Your task to perform on an android device: star an email in the gmail app Image 0: 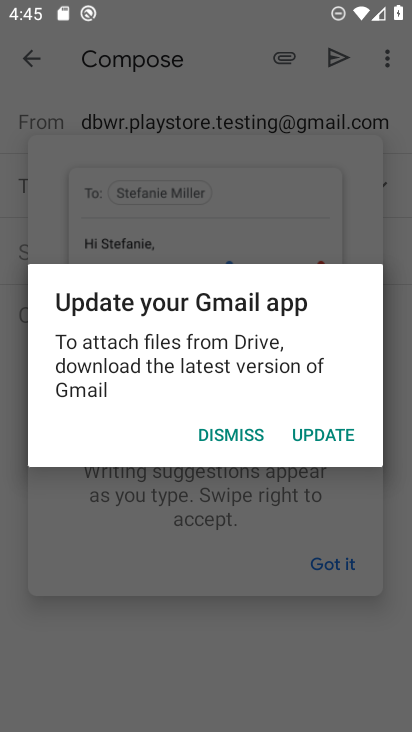
Step 0: press home button
Your task to perform on an android device: star an email in the gmail app Image 1: 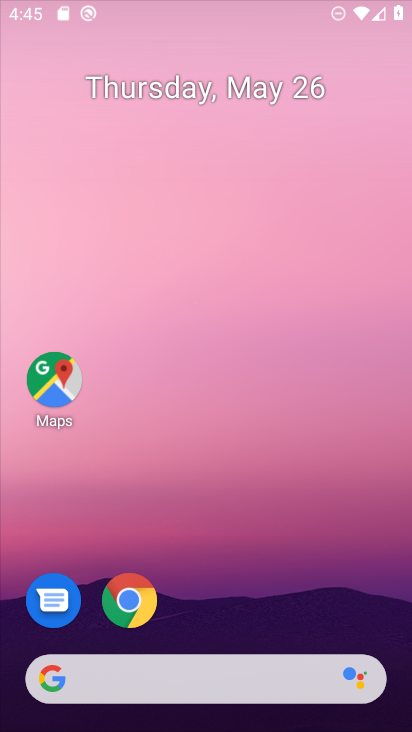
Step 1: drag from (222, 620) to (268, 11)
Your task to perform on an android device: star an email in the gmail app Image 2: 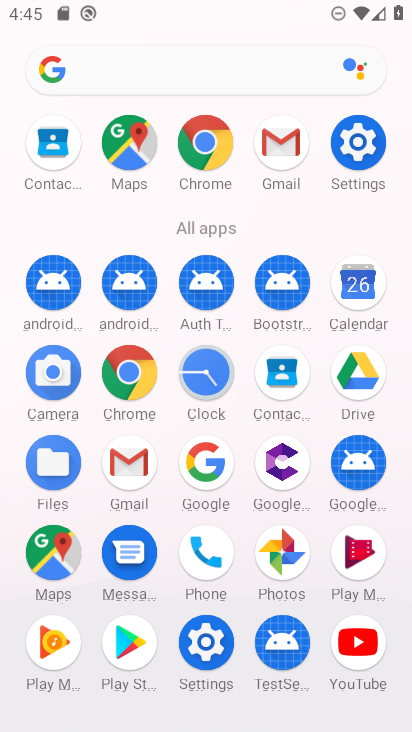
Step 2: click (140, 486)
Your task to perform on an android device: star an email in the gmail app Image 3: 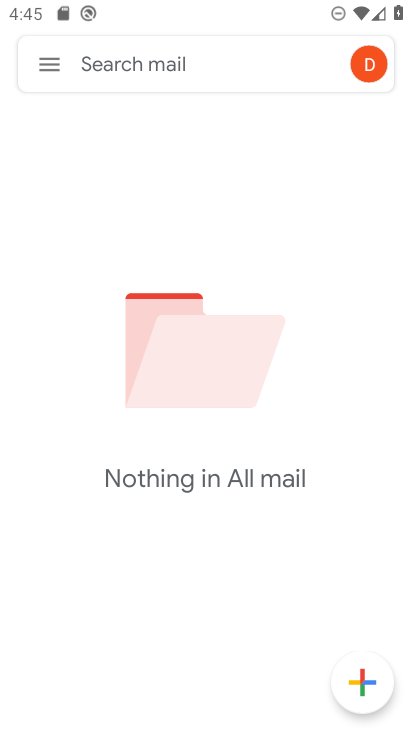
Step 3: task complete